Your task to perform on an android device: Show me popular games on the Play Store Image 0: 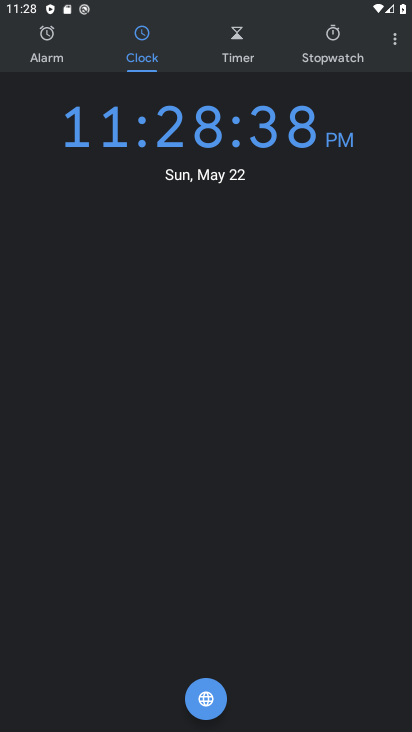
Step 0: press home button
Your task to perform on an android device: Show me popular games on the Play Store Image 1: 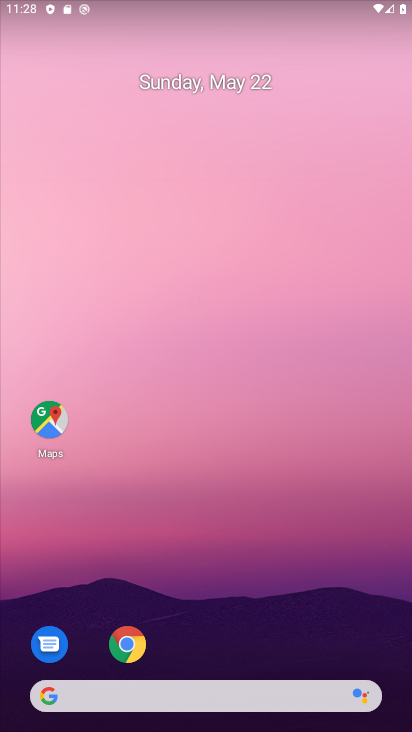
Step 1: drag from (299, 631) to (328, 47)
Your task to perform on an android device: Show me popular games on the Play Store Image 2: 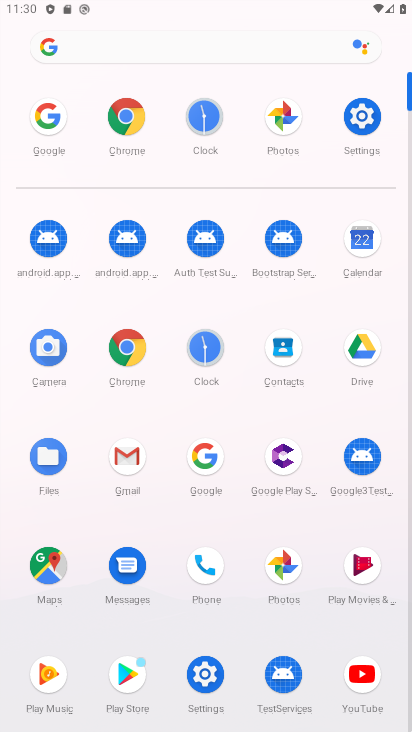
Step 2: click (141, 673)
Your task to perform on an android device: Show me popular games on the Play Store Image 3: 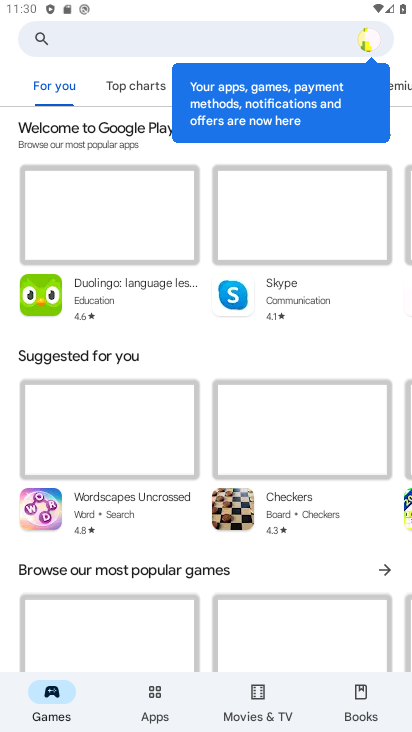
Step 3: task complete